Your task to perform on an android device: What's the weather like in Chicago? Image 0: 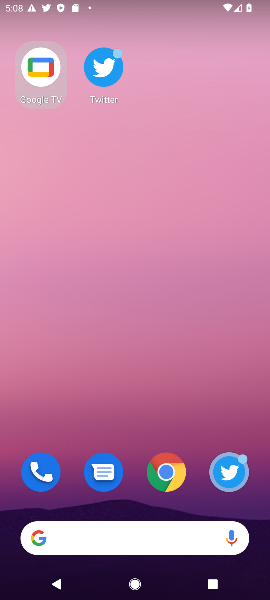
Step 0: click (176, 483)
Your task to perform on an android device: What's the weather like in Chicago? Image 1: 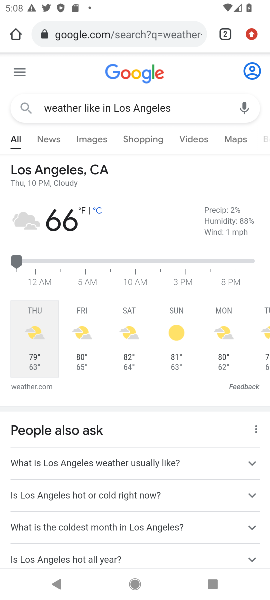
Step 1: click (150, 40)
Your task to perform on an android device: What's the weather like in Chicago? Image 2: 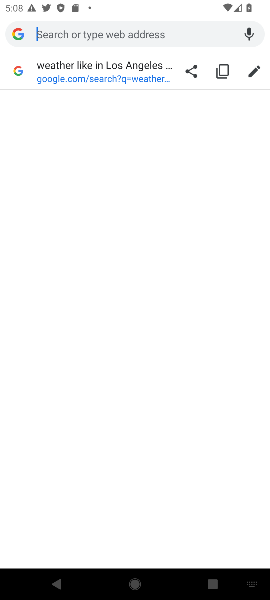
Step 2: type "weather like in Chicago"
Your task to perform on an android device: What's the weather like in Chicago? Image 3: 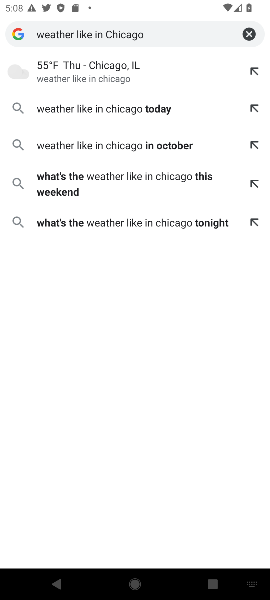
Step 3: click (141, 77)
Your task to perform on an android device: What's the weather like in Chicago? Image 4: 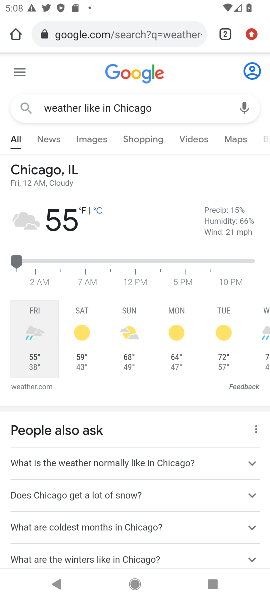
Step 4: click (122, 291)
Your task to perform on an android device: What's the weather like in Chicago? Image 5: 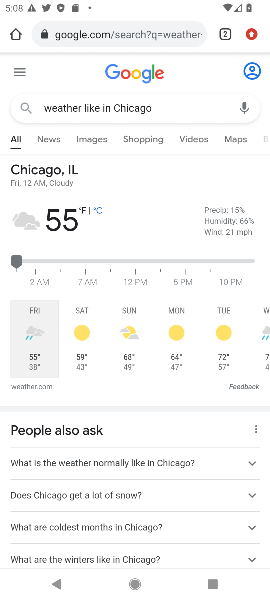
Step 5: task complete